Your task to perform on an android device: Check the news Image 0: 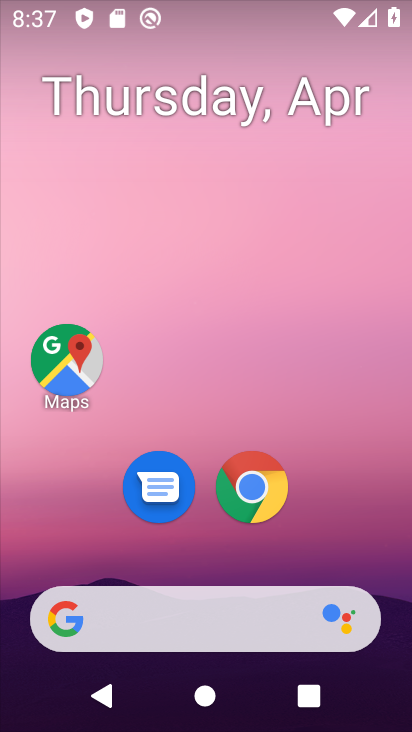
Step 0: drag from (211, 540) to (209, 113)
Your task to perform on an android device: Check the news Image 1: 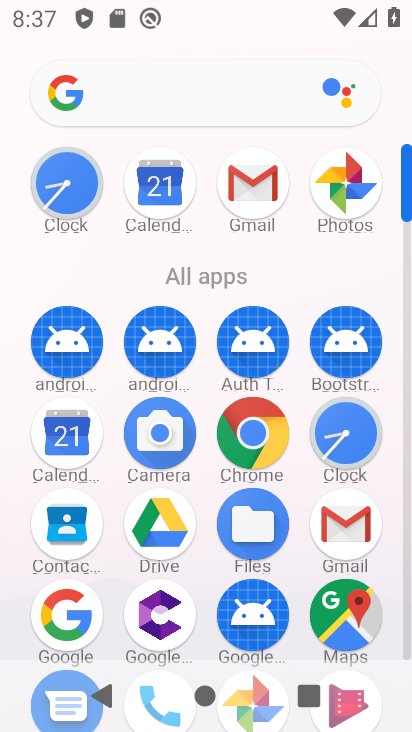
Step 1: click (58, 611)
Your task to perform on an android device: Check the news Image 2: 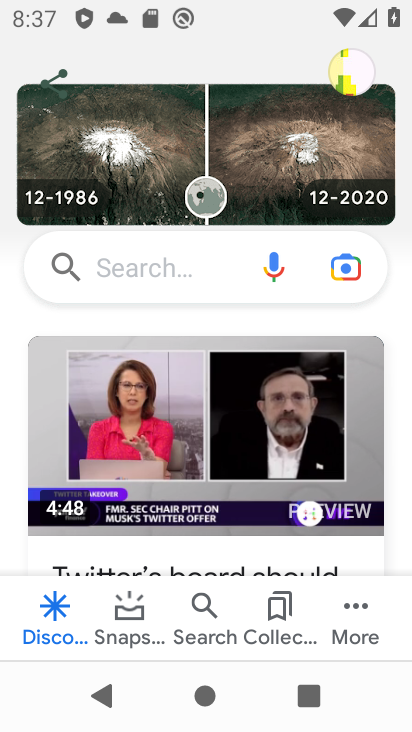
Step 2: drag from (256, 196) to (256, 583)
Your task to perform on an android device: Check the news Image 3: 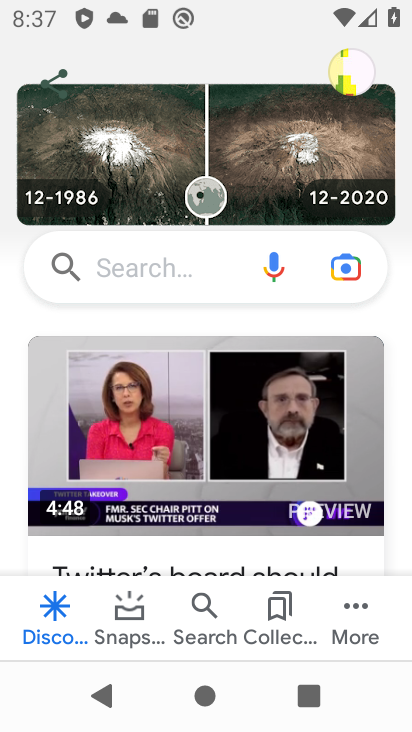
Step 3: drag from (244, 256) to (243, 506)
Your task to perform on an android device: Check the news Image 4: 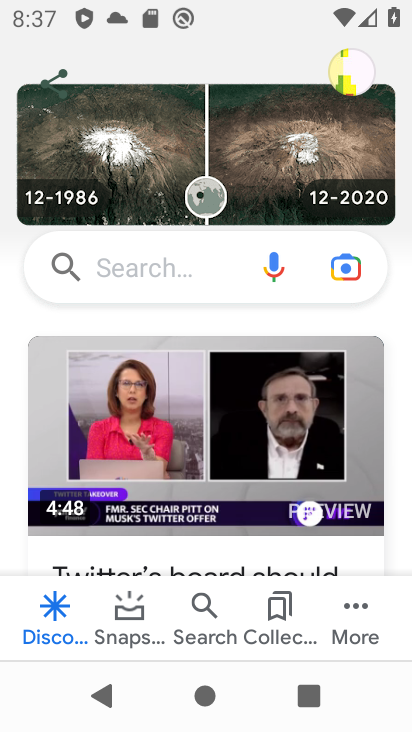
Step 4: drag from (207, 114) to (209, 431)
Your task to perform on an android device: Check the news Image 5: 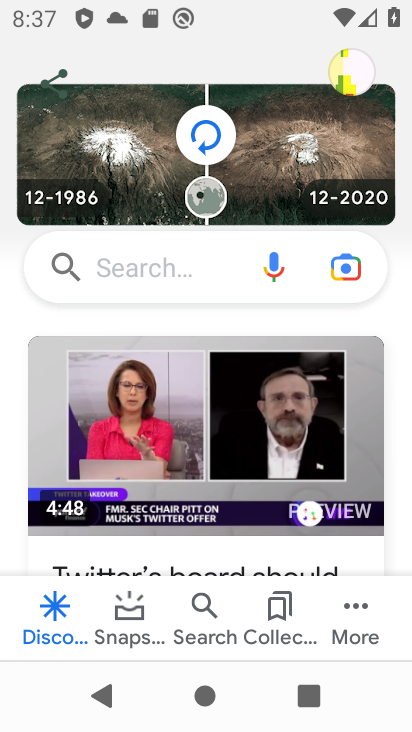
Step 5: drag from (160, 177) to (197, 174)
Your task to perform on an android device: Check the news Image 6: 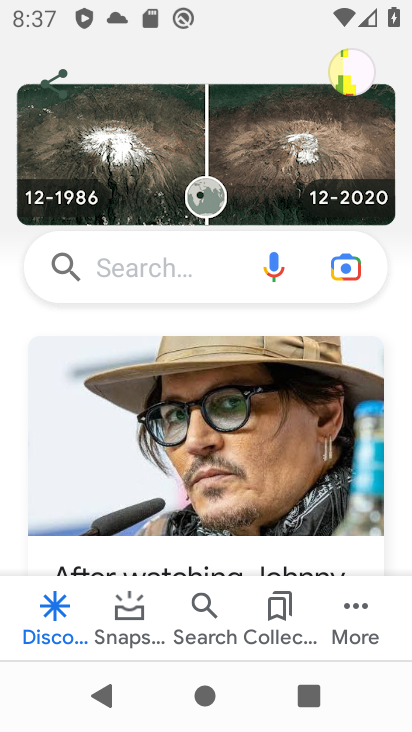
Step 6: click (202, 203)
Your task to perform on an android device: Check the news Image 7: 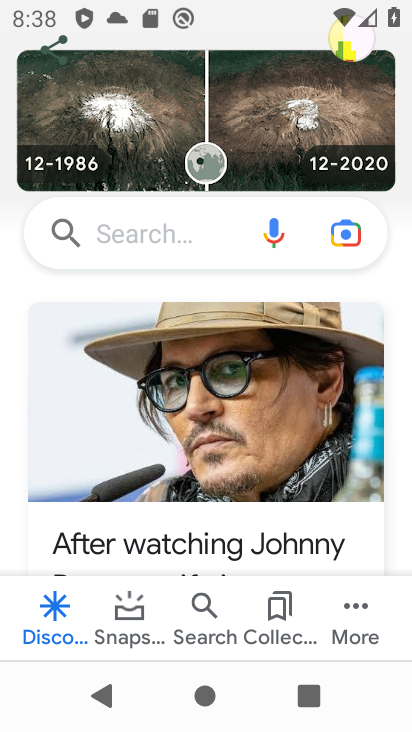
Step 7: click (146, 222)
Your task to perform on an android device: Check the news Image 8: 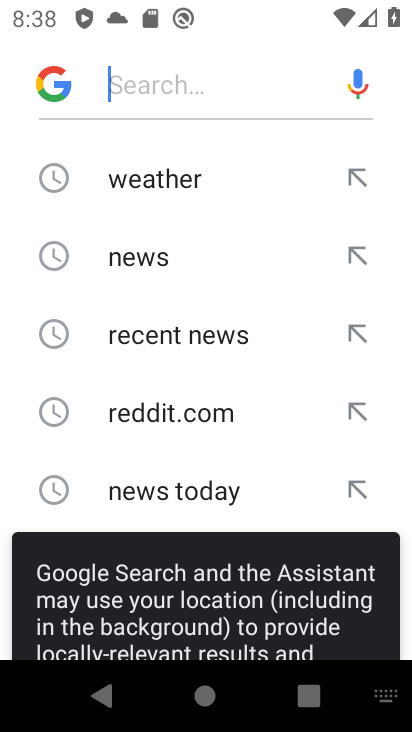
Step 8: click (145, 246)
Your task to perform on an android device: Check the news Image 9: 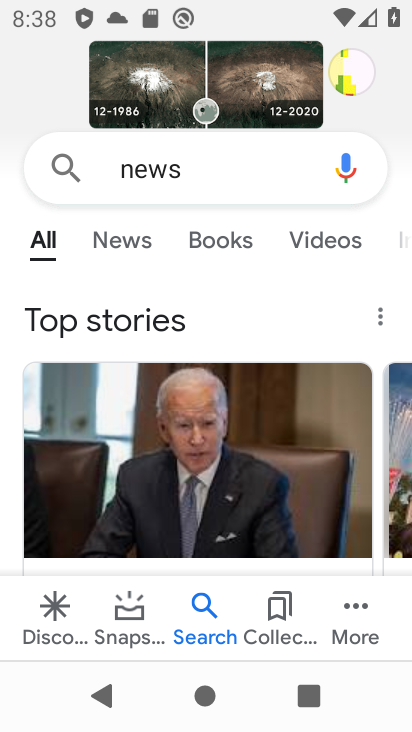
Step 9: click (141, 231)
Your task to perform on an android device: Check the news Image 10: 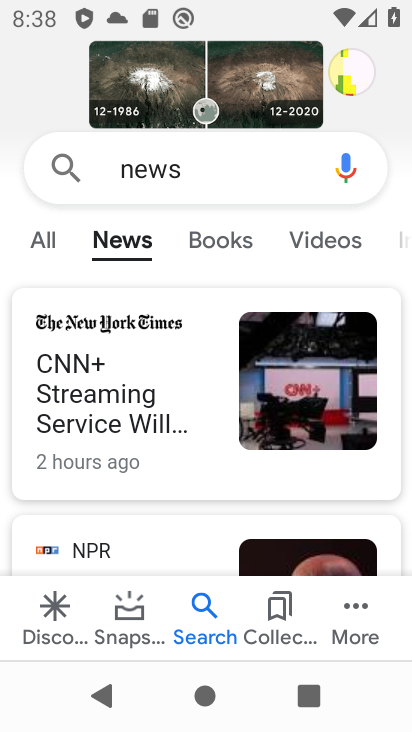
Step 10: task complete